Your task to perform on an android device: Set the phone to "Do not disturb". Image 0: 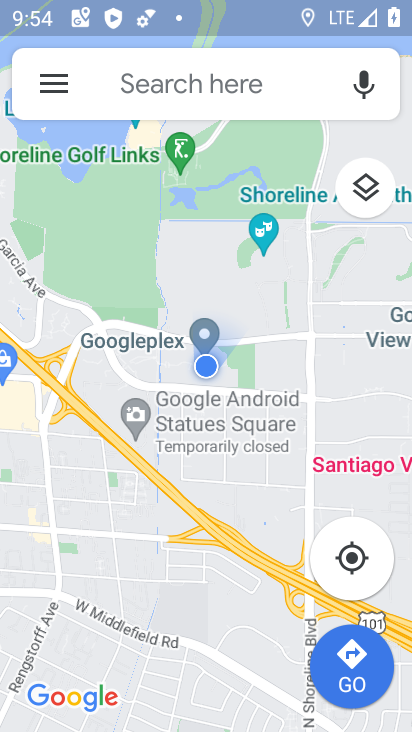
Step 0: press home button
Your task to perform on an android device: Set the phone to "Do not disturb". Image 1: 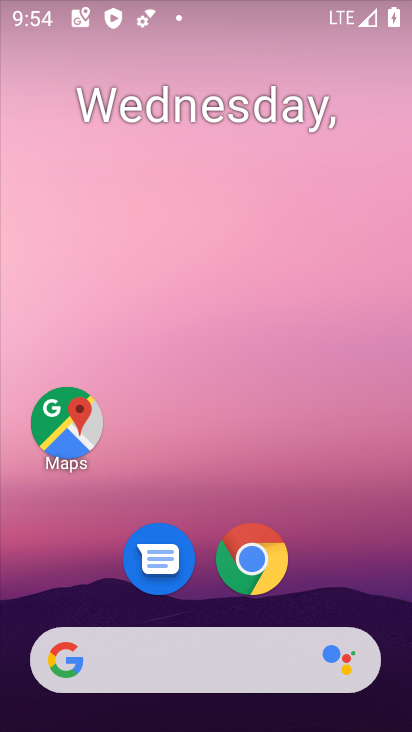
Step 1: drag from (167, 412) to (168, 60)
Your task to perform on an android device: Set the phone to "Do not disturb". Image 2: 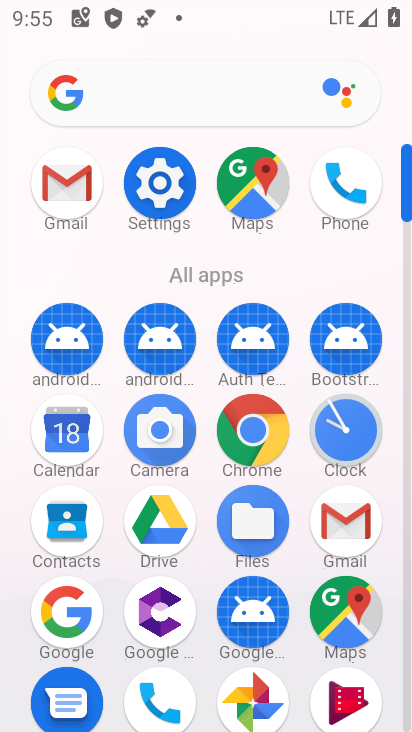
Step 2: click (164, 198)
Your task to perform on an android device: Set the phone to "Do not disturb". Image 3: 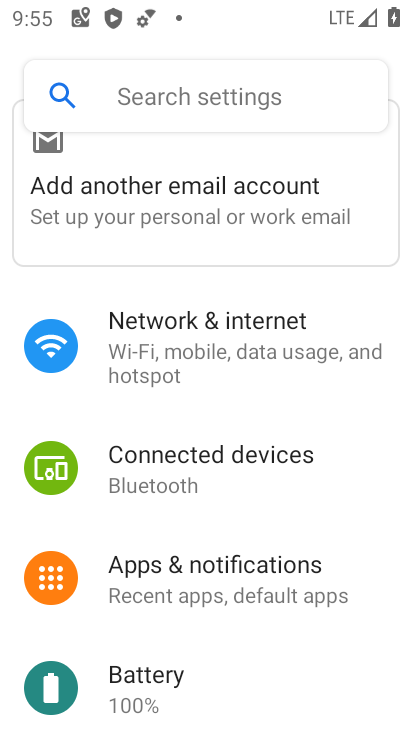
Step 3: drag from (236, 496) to (299, 178)
Your task to perform on an android device: Set the phone to "Do not disturb". Image 4: 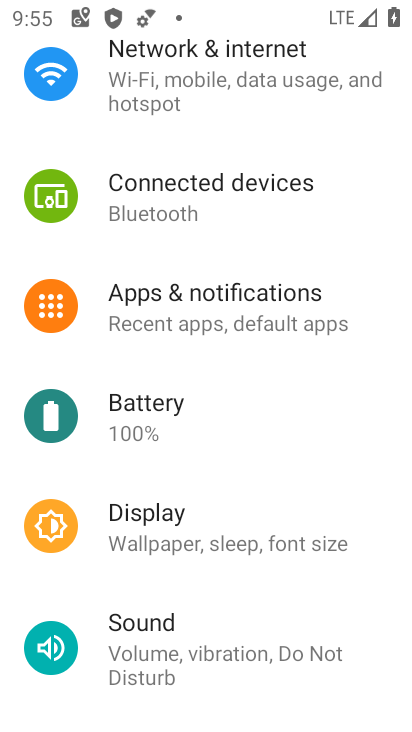
Step 4: click (246, 656)
Your task to perform on an android device: Set the phone to "Do not disturb". Image 5: 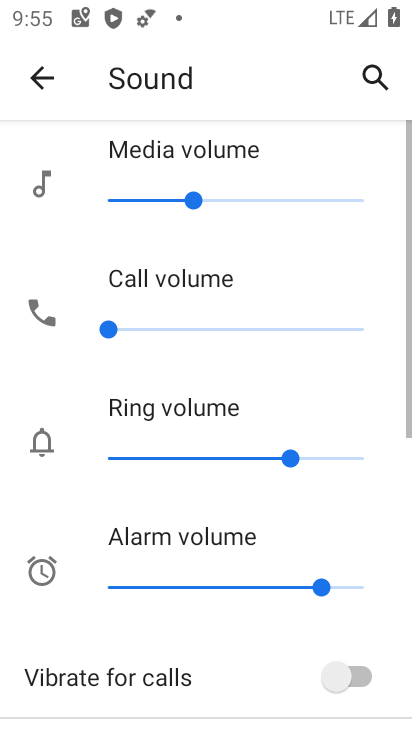
Step 5: drag from (241, 603) to (257, 168)
Your task to perform on an android device: Set the phone to "Do not disturb". Image 6: 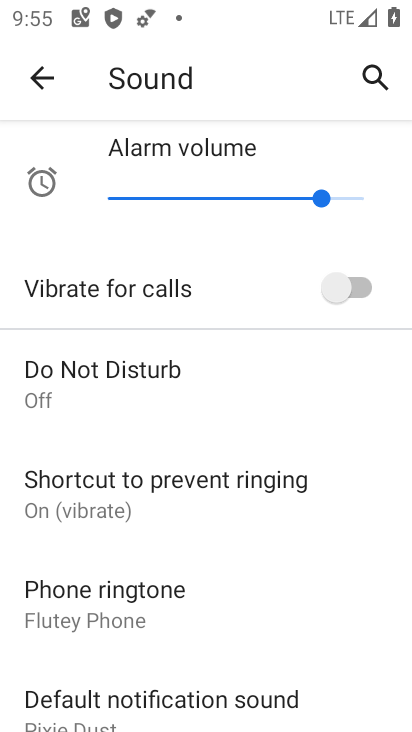
Step 6: click (112, 391)
Your task to perform on an android device: Set the phone to "Do not disturb". Image 7: 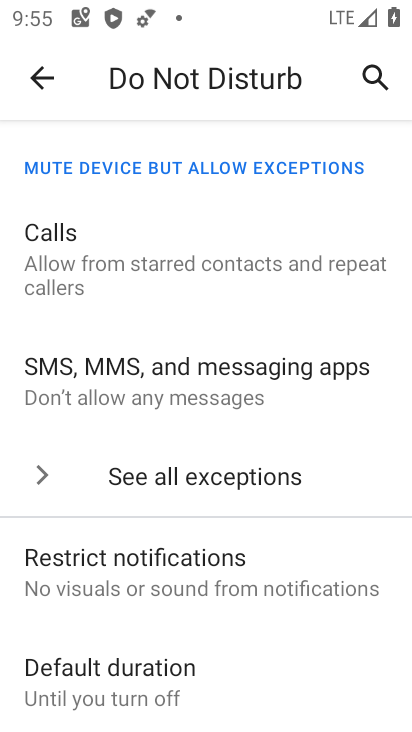
Step 7: drag from (228, 430) to (270, 126)
Your task to perform on an android device: Set the phone to "Do not disturb". Image 8: 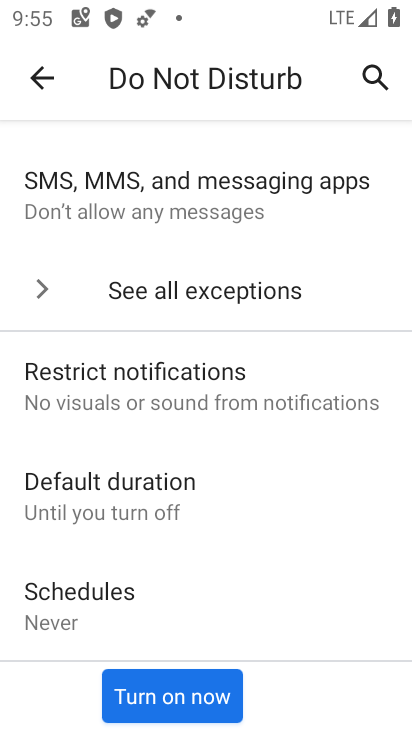
Step 8: click (182, 694)
Your task to perform on an android device: Set the phone to "Do not disturb". Image 9: 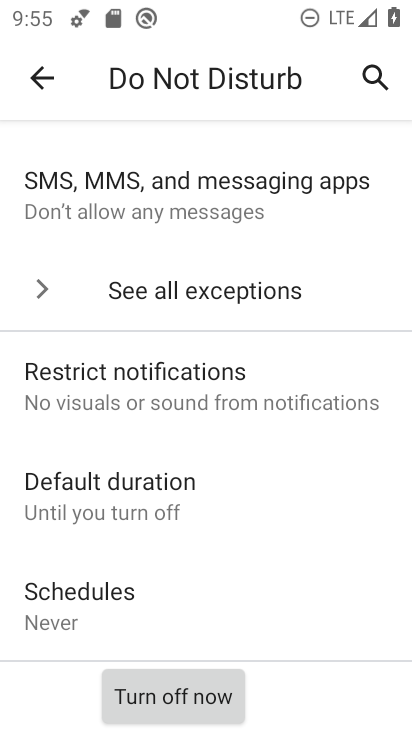
Step 9: task complete